Your task to perform on an android device: Open Maps and search for coffee Image 0: 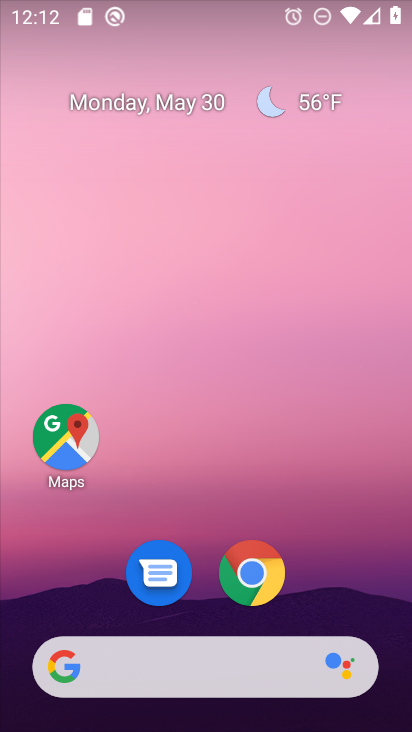
Step 0: drag from (316, 645) to (320, 56)
Your task to perform on an android device: Open Maps and search for coffee Image 1: 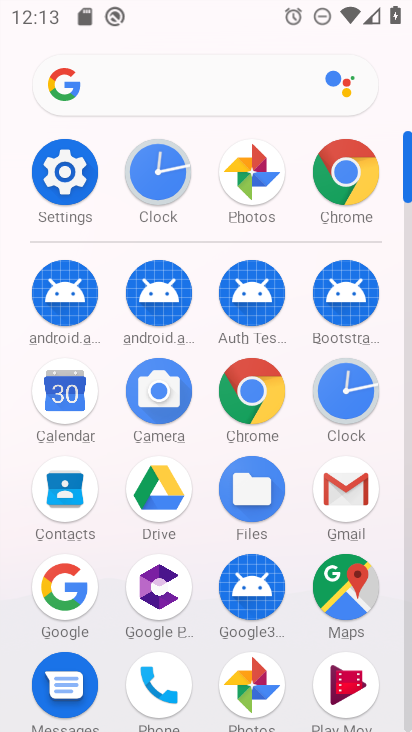
Step 1: click (332, 590)
Your task to perform on an android device: Open Maps and search for coffee Image 2: 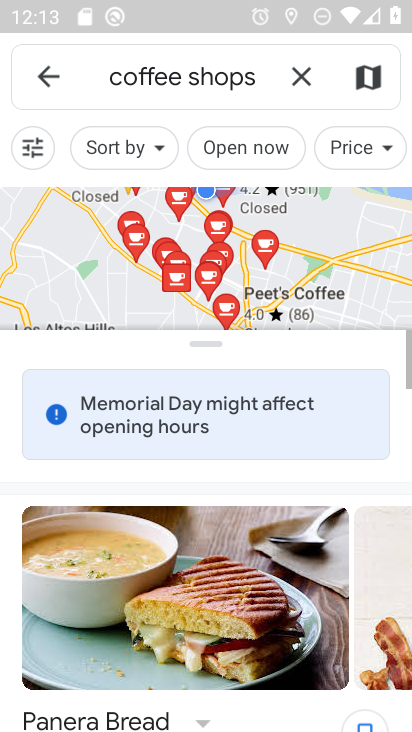
Step 2: press back button
Your task to perform on an android device: Open Maps and search for coffee Image 3: 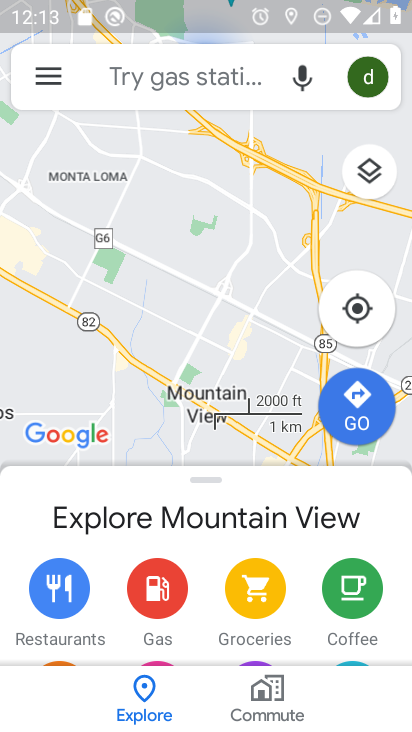
Step 3: click (252, 85)
Your task to perform on an android device: Open Maps and search for coffee Image 4: 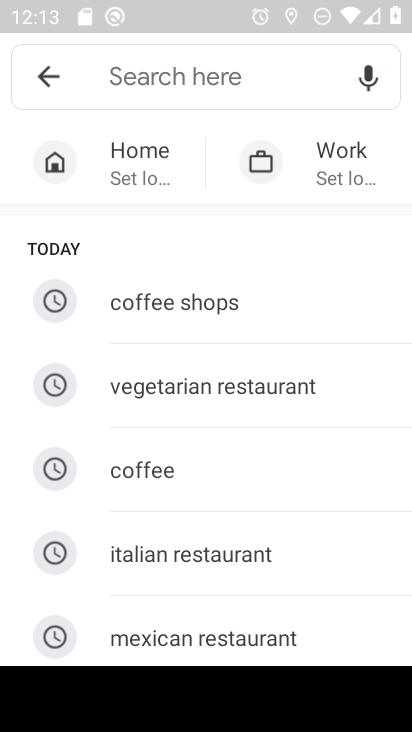
Step 4: type "coffee"
Your task to perform on an android device: Open Maps and search for coffee Image 5: 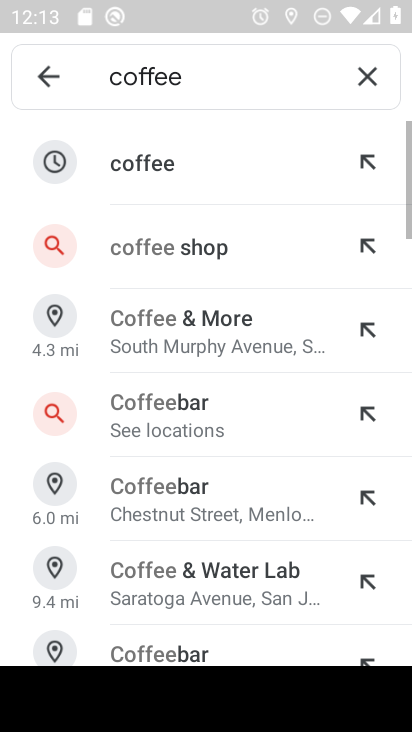
Step 5: click (108, 189)
Your task to perform on an android device: Open Maps and search for coffee Image 6: 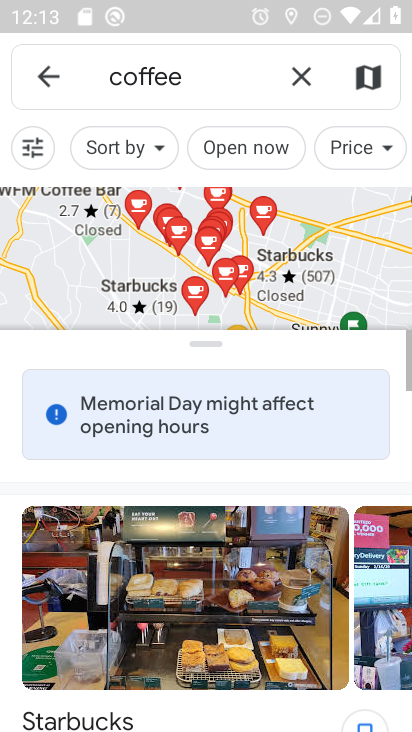
Step 6: task complete